Your task to perform on an android device: turn off notifications in google photos Image 0: 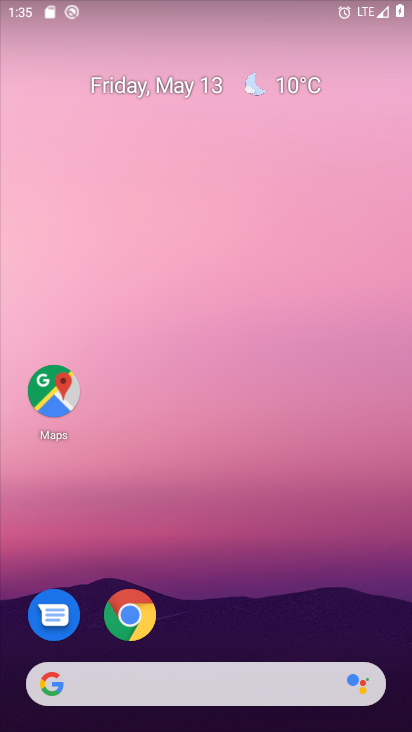
Step 0: drag from (292, 532) to (321, 61)
Your task to perform on an android device: turn off notifications in google photos Image 1: 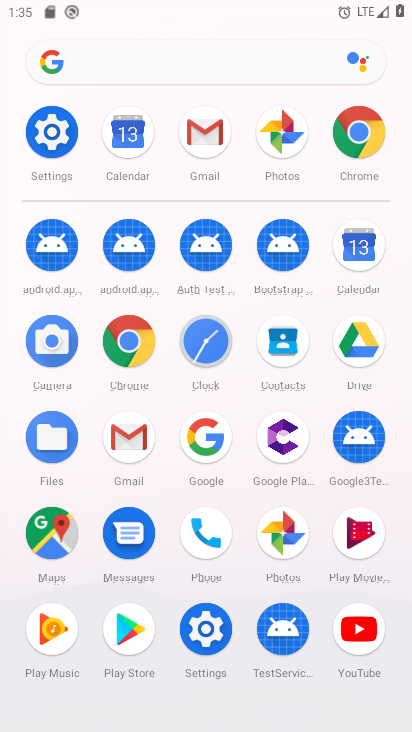
Step 1: click (282, 146)
Your task to perform on an android device: turn off notifications in google photos Image 2: 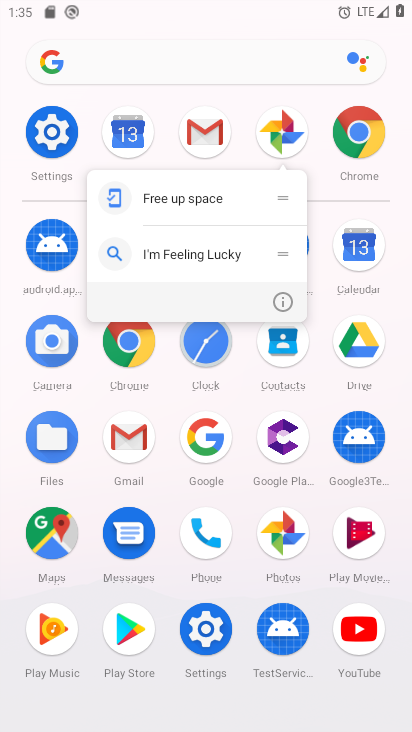
Step 2: click (55, 131)
Your task to perform on an android device: turn off notifications in google photos Image 3: 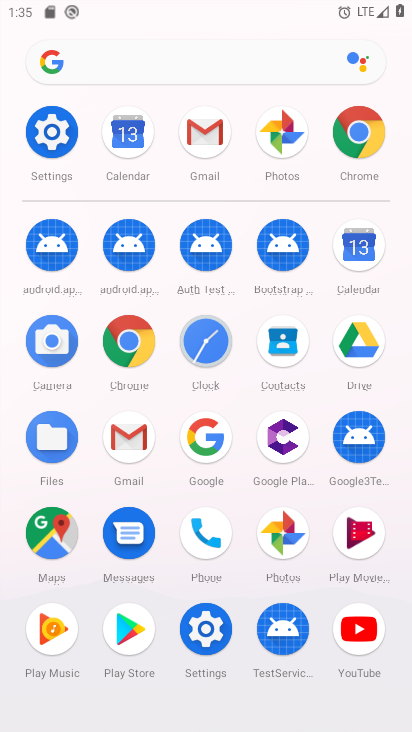
Step 3: click (61, 131)
Your task to perform on an android device: turn off notifications in google photos Image 4: 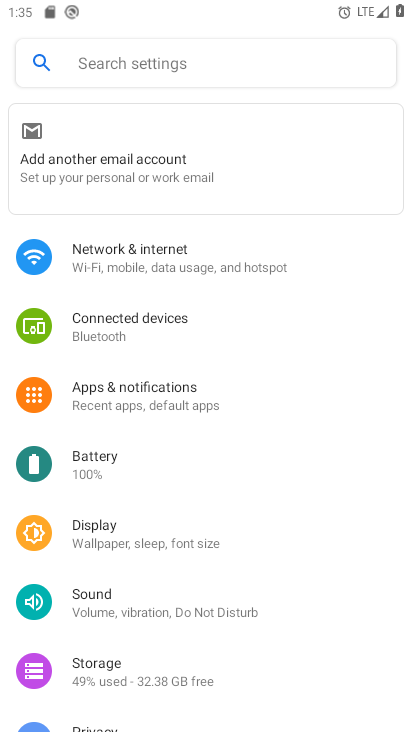
Step 4: click (176, 401)
Your task to perform on an android device: turn off notifications in google photos Image 5: 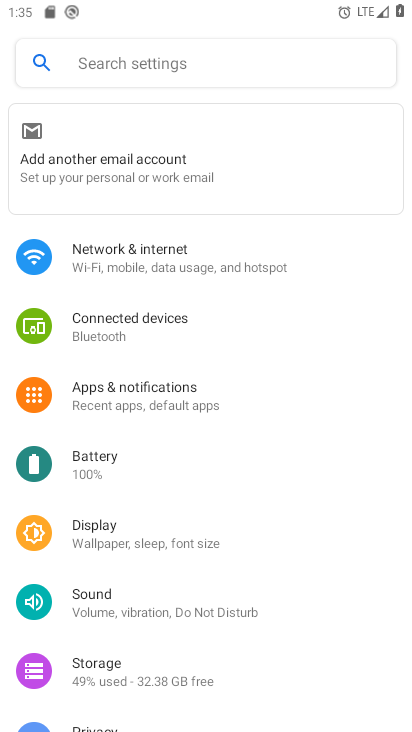
Step 5: click (149, 403)
Your task to perform on an android device: turn off notifications in google photos Image 6: 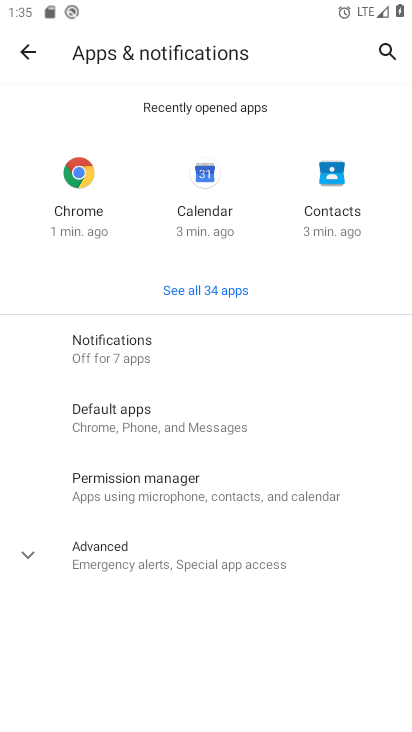
Step 6: click (205, 282)
Your task to perform on an android device: turn off notifications in google photos Image 7: 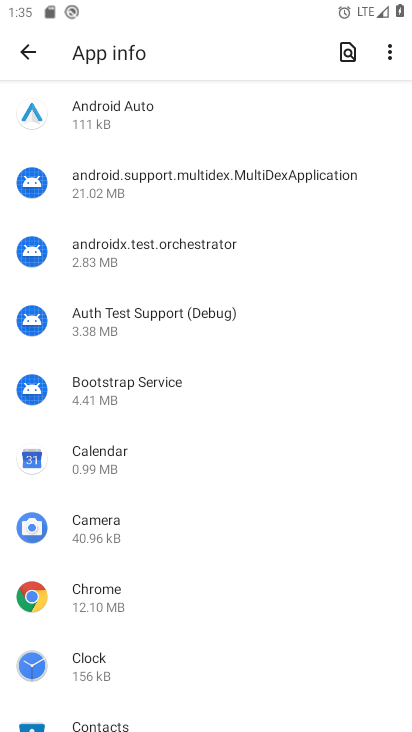
Step 7: drag from (202, 442) to (297, 108)
Your task to perform on an android device: turn off notifications in google photos Image 8: 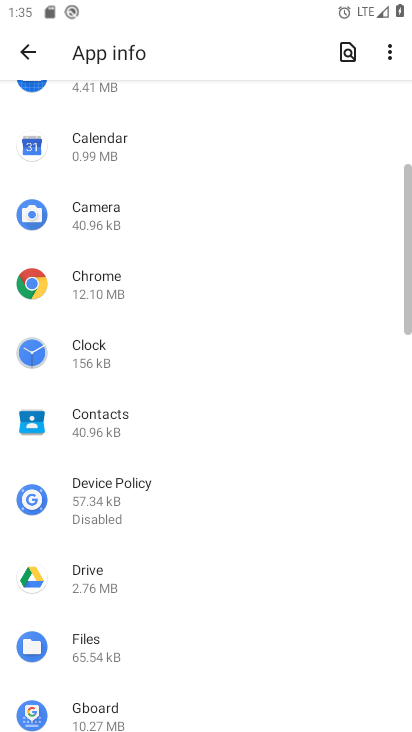
Step 8: drag from (213, 397) to (273, 0)
Your task to perform on an android device: turn off notifications in google photos Image 9: 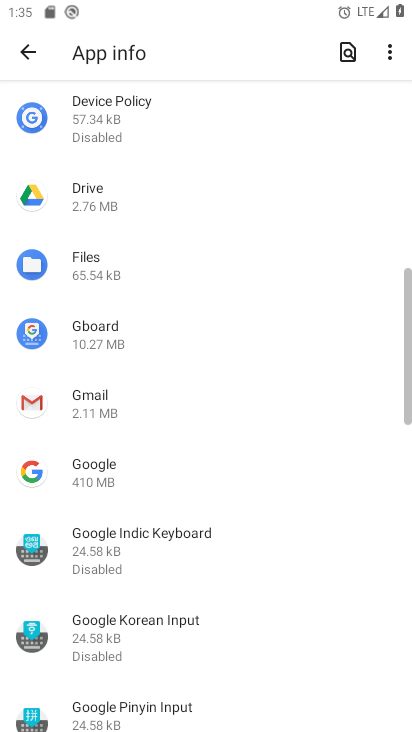
Step 9: drag from (194, 452) to (267, 0)
Your task to perform on an android device: turn off notifications in google photos Image 10: 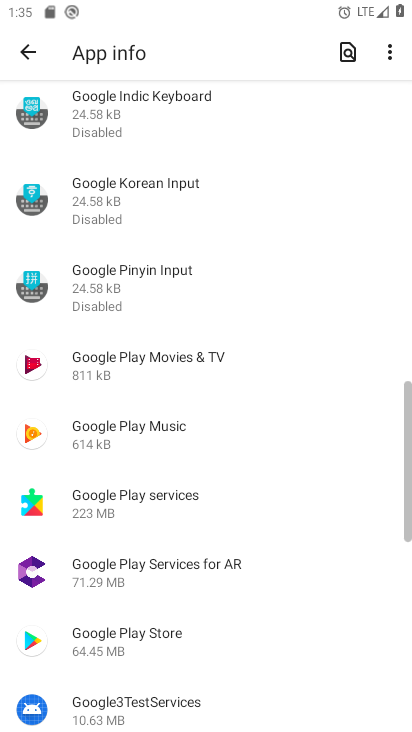
Step 10: drag from (158, 412) to (232, 0)
Your task to perform on an android device: turn off notifications in google photos Image 11: 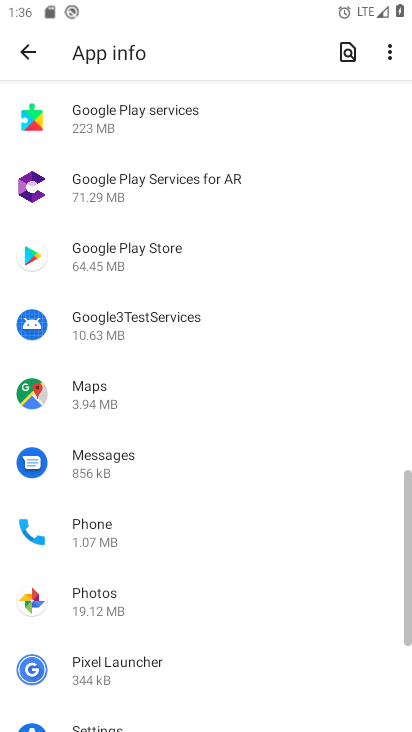
Step 11: drag from (151, 396) to (179, 3)
Your task to perform on an android device: turn off notifications in google photos Image 12: 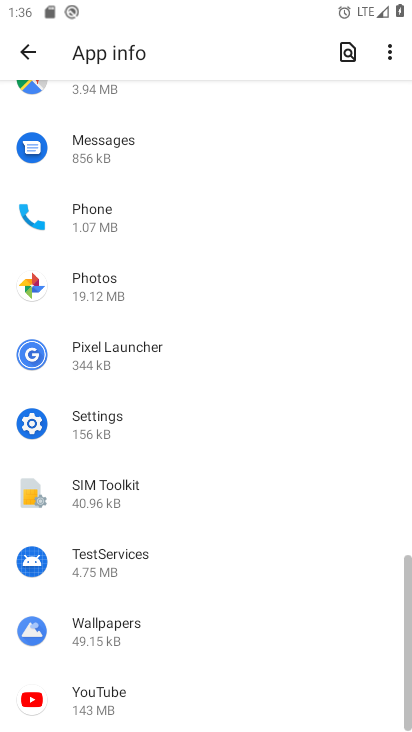
Step 12: drag from (162, 431) to (188, 137)
Your task to perform on an android device: turn off notifications in google photos Image 13: 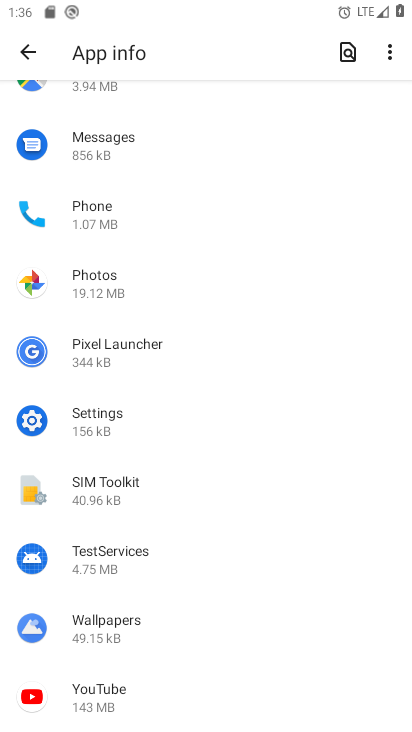
Step 13: click (117, 283)
Your task to perform on an android device: turn off notifications in google photos Image 14: 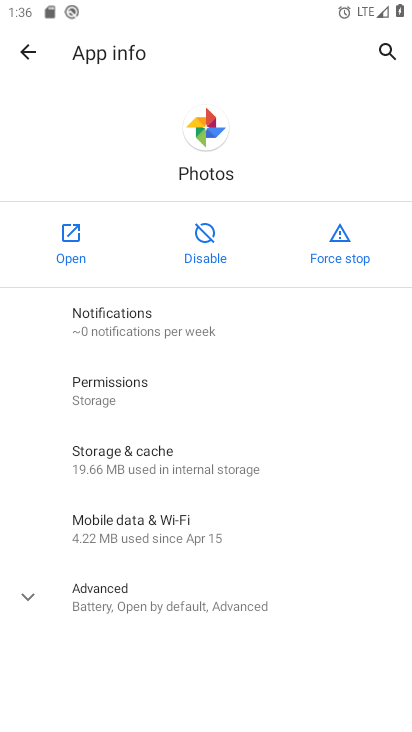
Step 14: click (128, 326)
Your task to perform on an android device: turn off notifications in google photos Image 15: 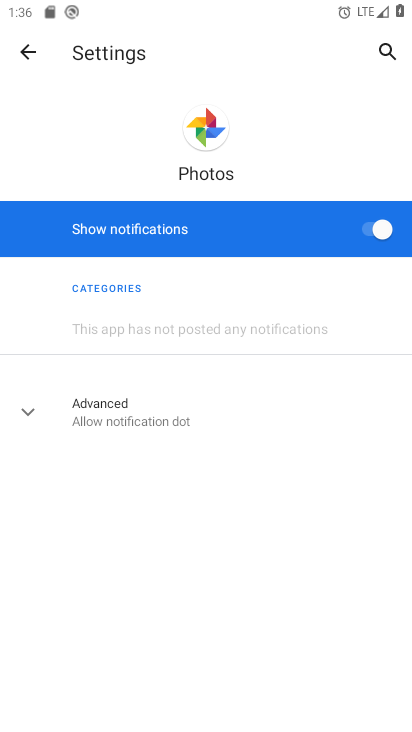
Step 15: click (362, 233)
Your task to perform on an android device: turn off notifications in google photos Image 16: 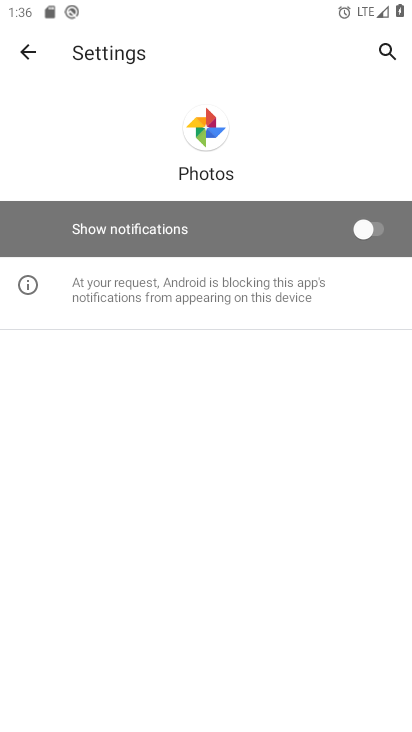
Step 16: task complete